Your task to perform on an android device: Open Chrome and go to the settings page Image 0: 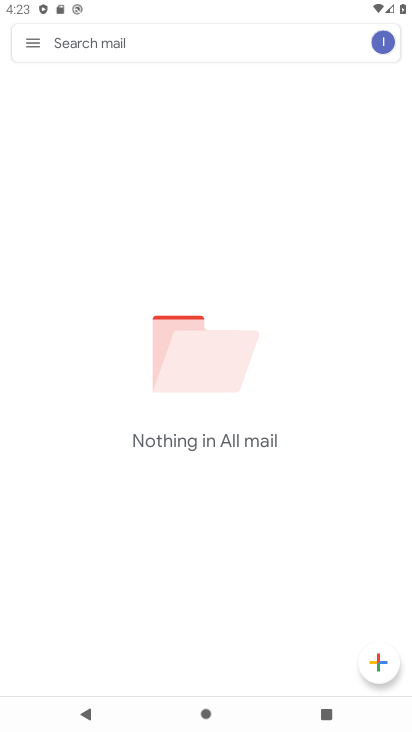
Step 0: press home button
Your task to perform on an android device: Open Chrome and go to the settings page Image 1: 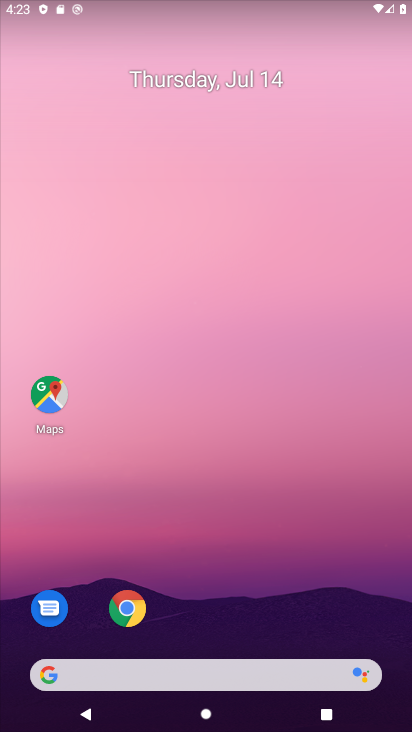
Step 1: click (132, 617)
Your task to perform on an android device: Open Chrome and go to the settings page Image 2: 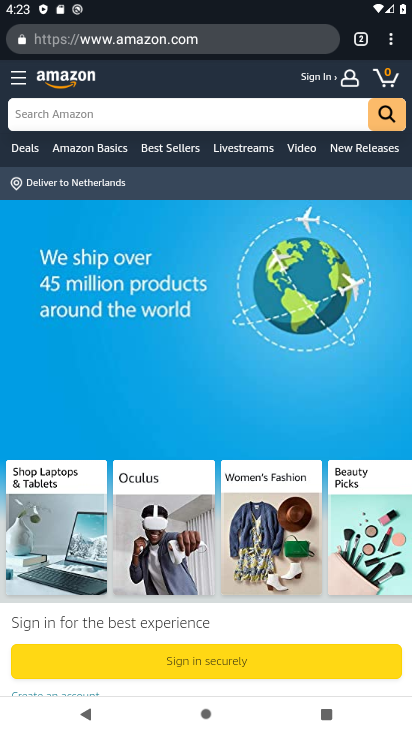
Step 2: click (394, 43)
Your task to perform on an android device: Open Chrome and go to the settings page Image 3: 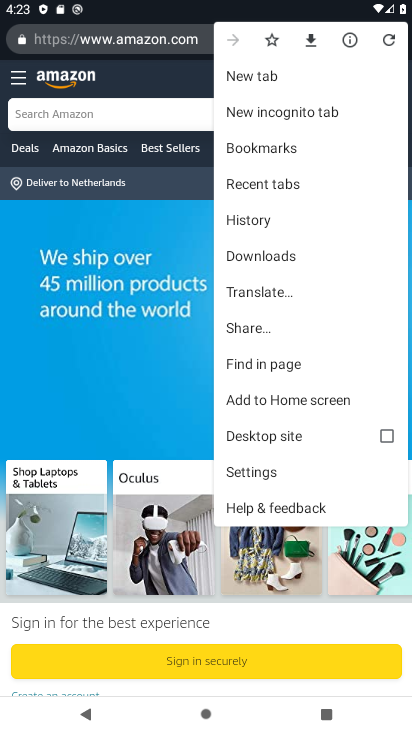
Step 3: click (273, 470)
Your task to perform on an android device: Open Chrome and go to the settings page Image 4: 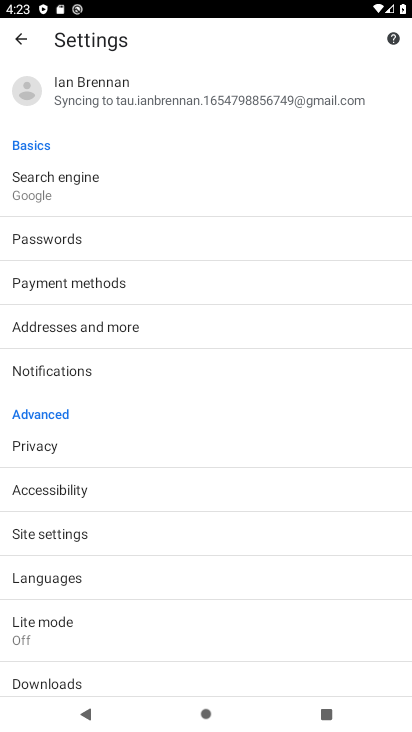
Step 4: task complete